Your task to perform on an android device: toggle location history Image 0: 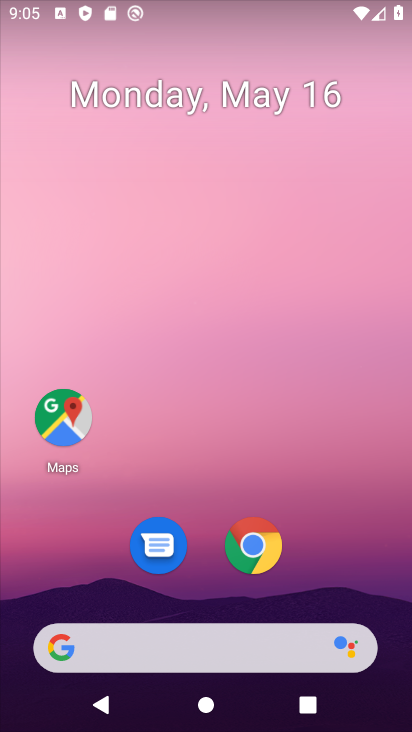
Step 0: drag from (208, 594) to (298, 281)
Your task to perform on an android device: toggle location history Image 1: 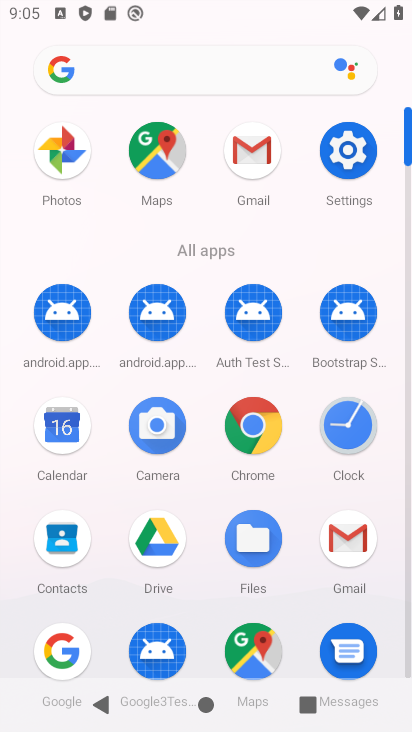
Step 1: click (345, 165)
Your task to perform on an android device: toggle location history Image 2: 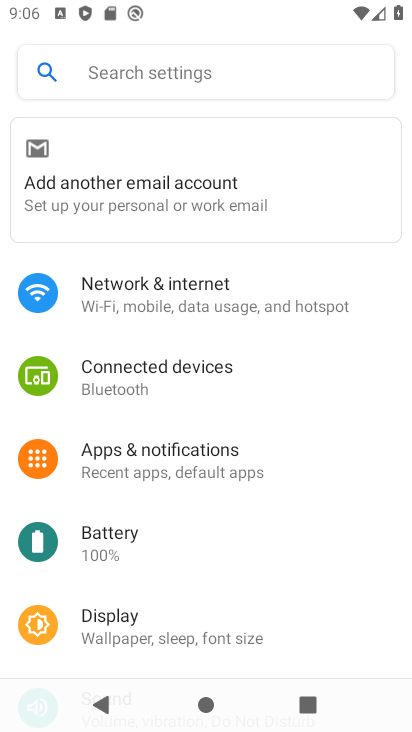
Step 2: drag from (137, 629) to (188, 124)
Your task to perform on an android device: toggle location history Image 3: 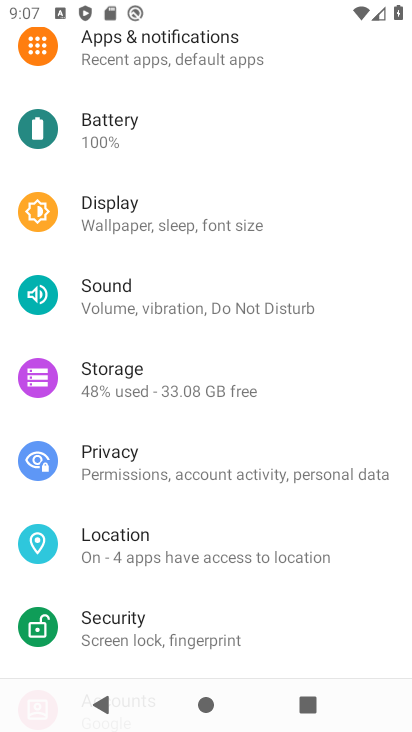
Step 3: click (124, 548)
Your task to perform on an android device: toggle location history Image 4: 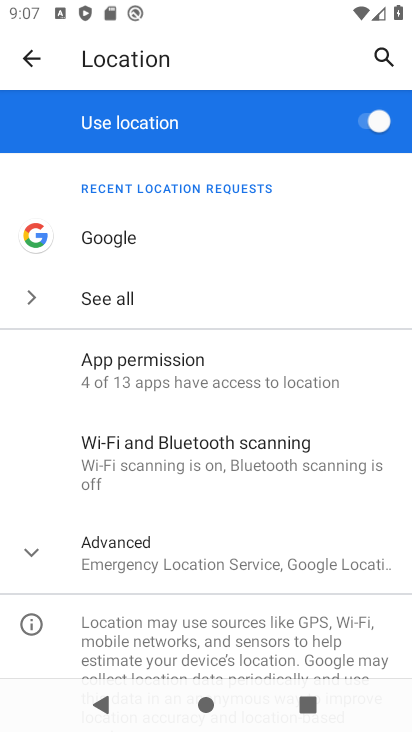
Step 4: click (264, 571)
Your task to perform on an android device: toggle location history Image 5: 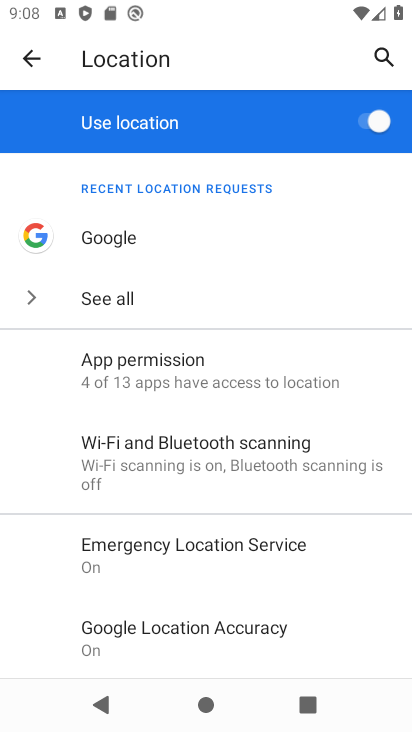
Step 5: drag from (192, 637) to (237, 242)
Your task to perform on an android device: toggle location history Image 6: 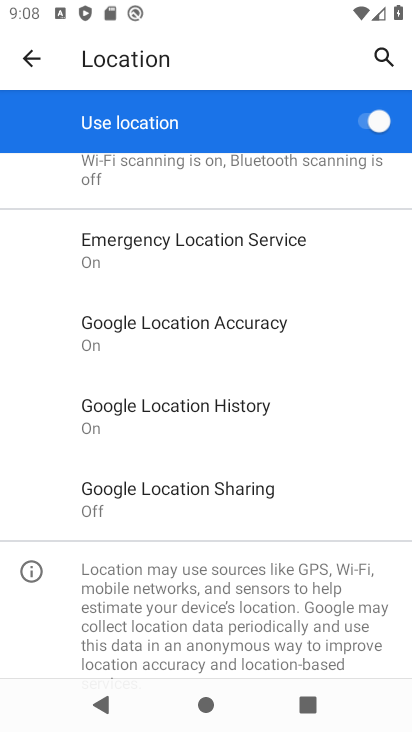
Step 6: click (224, 391)
Your task to perform on an android device: toggle location history Image 7: 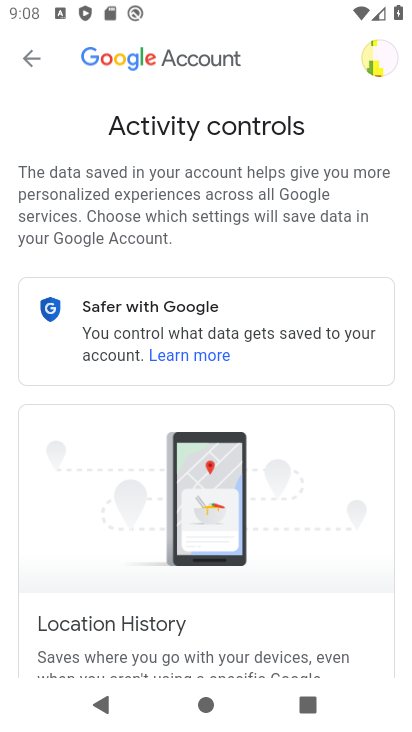
Step 7: drag from (191, 632) to (209, 396)
Your task to perform on an android device: toggle location history Image 8: 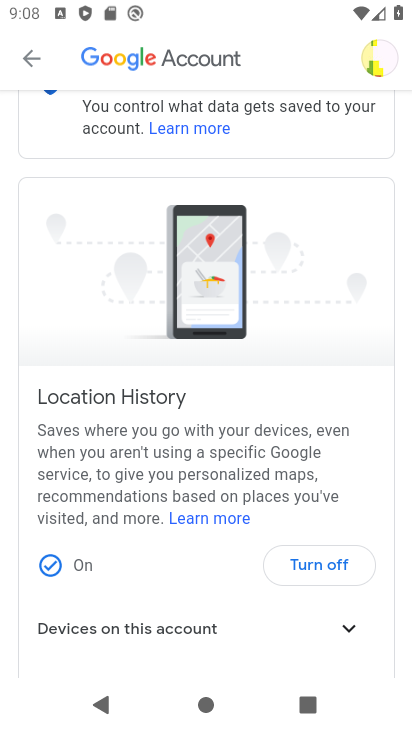
Step 8: click (305, 568)
Your task to perform on an android device: toggle location history Image 9: 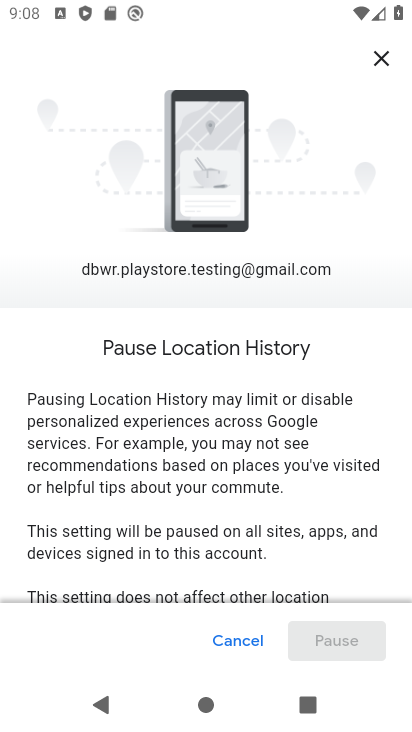
Step 9: drag from (211, 571) to (234, 105)
Your task to perform on an android device: toggle location history Image 10: 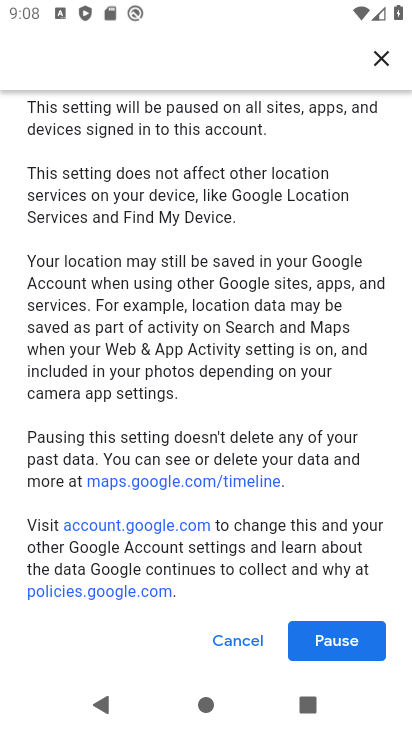
Step 10: click (330, 635)
Your task to perform on an android device: toggle location history Image 11: 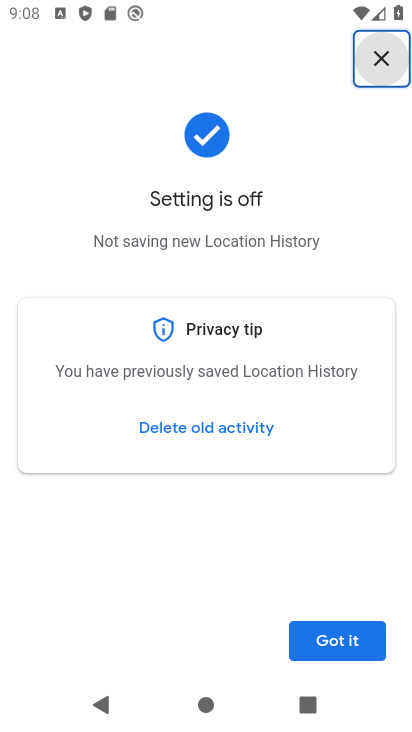
Step 11: click (330, 635)
Your task to perform on an android device: toggle location history Image 12: 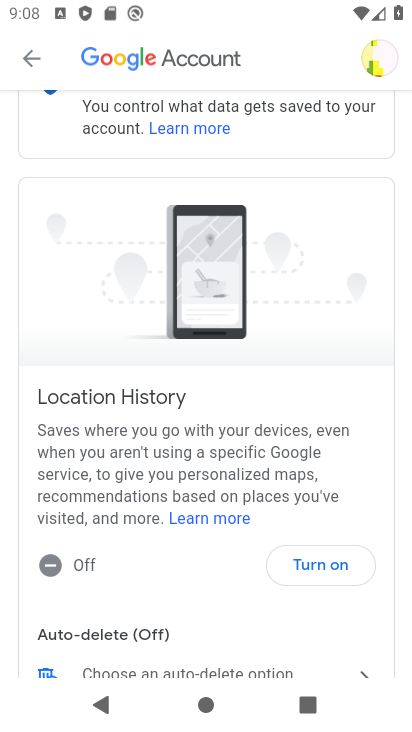
Step 12: task complete